Your task to perform on an android device: Open Chrome and go to settings Image 0: 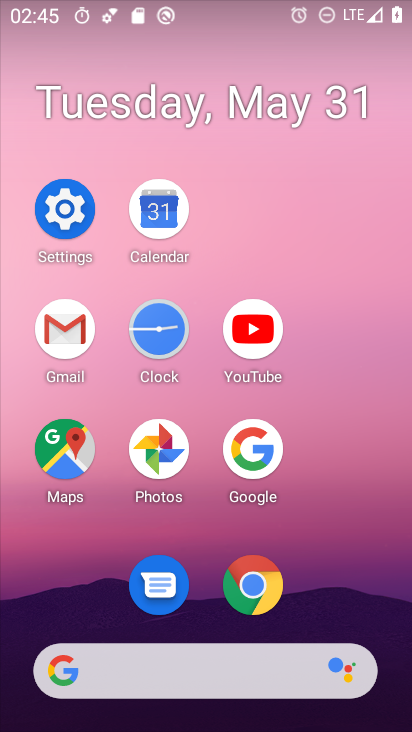
Step 0: click (238, 582)
Your task to perform on an android device: Open Chrome and go to settings Image 1: 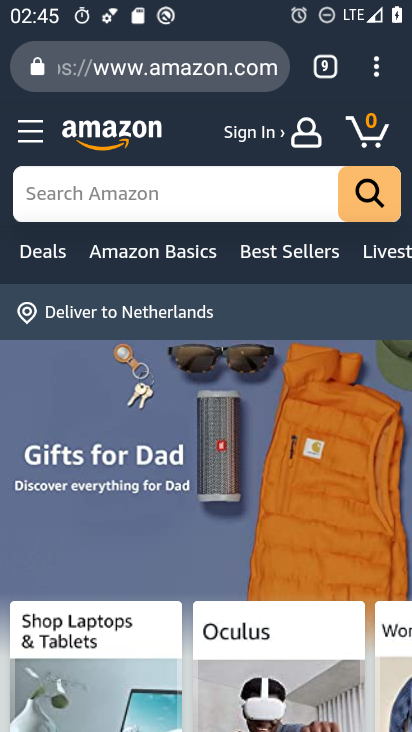
Step 1: click (378, 78)
Your task to perform on an android device: Open Chrome and go to settings Image 2: 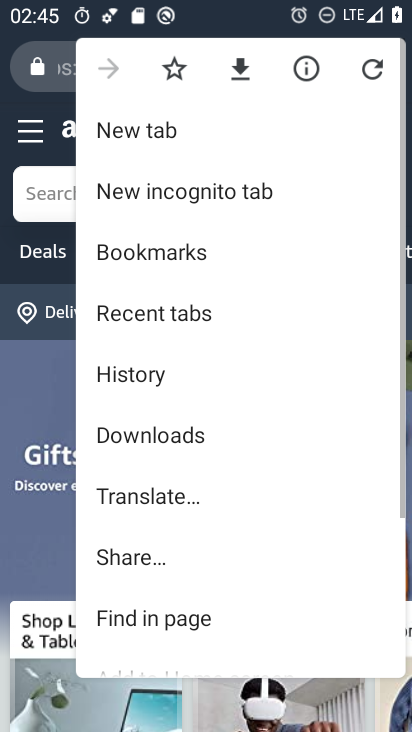
Step 2: drag from (231, 520) to (230, 193)
Your task to perform on an android device: Open Chrome and go to settings Image 3: 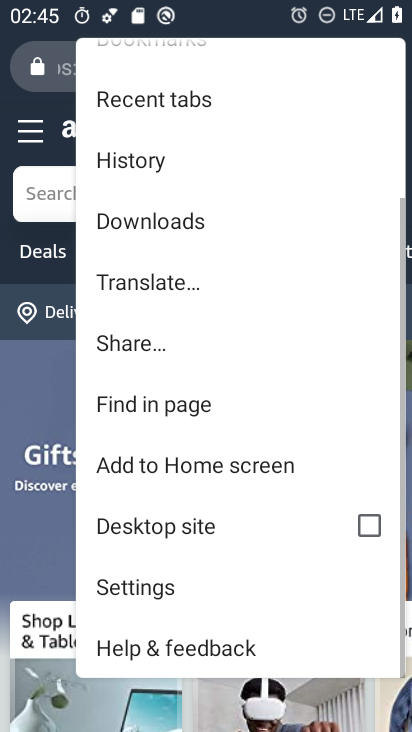
Step 3: click (233, 591)
Your task to perform on an android device: Open Chrome and go to settings Image 4: 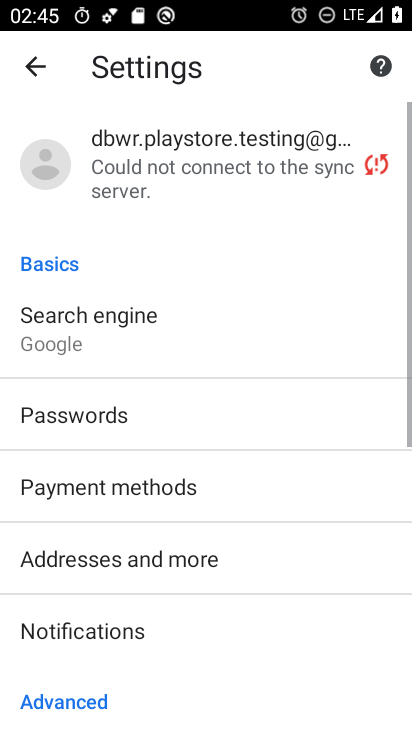
Step 4: task complete